Your task to perform on an android device: turn on sleep mode Image 0: 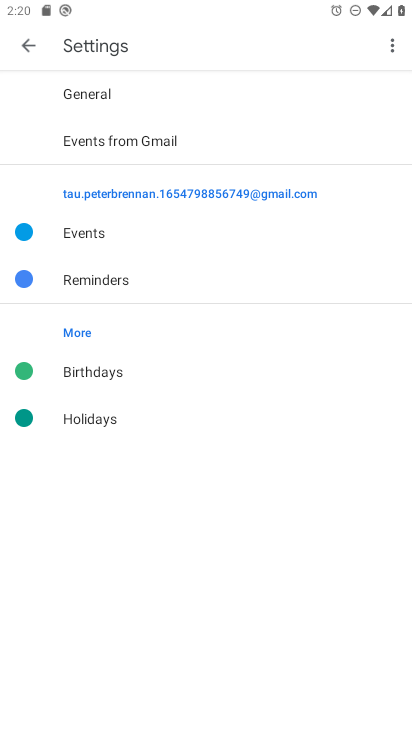
Step 0: press home button
Your task to perform on an android device: turn on sleep mode Image 1: 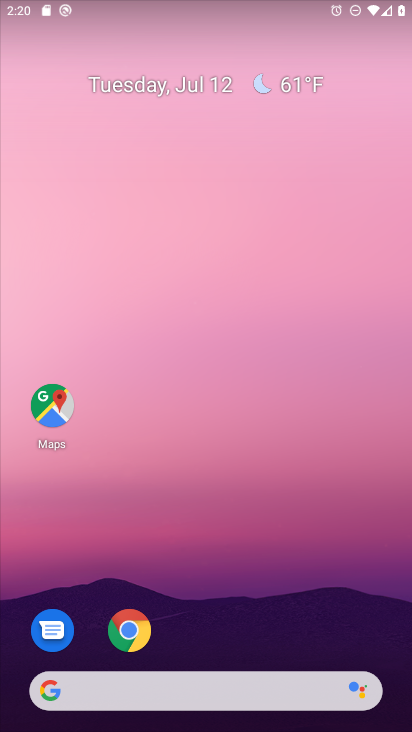
Step 1: drag from (197, 642) to (261, 65)
Your task to perform on an android device: turn on sleep mode Image 2: 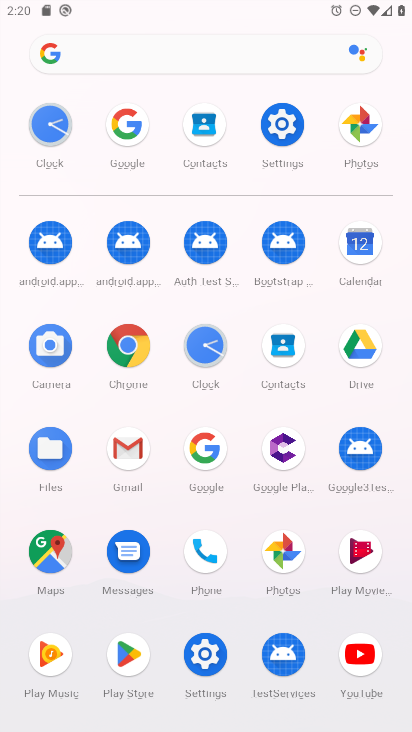
Step 2: click (279, 135)
Your task to perform on an android device: turn on sleep mode Image 3: 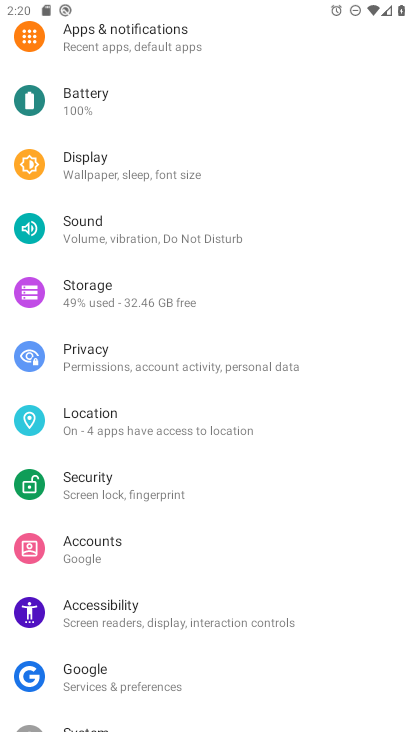
Step 3: click (164, 182)
Your task to perform on an android device: turn on sleep mode Image 4: 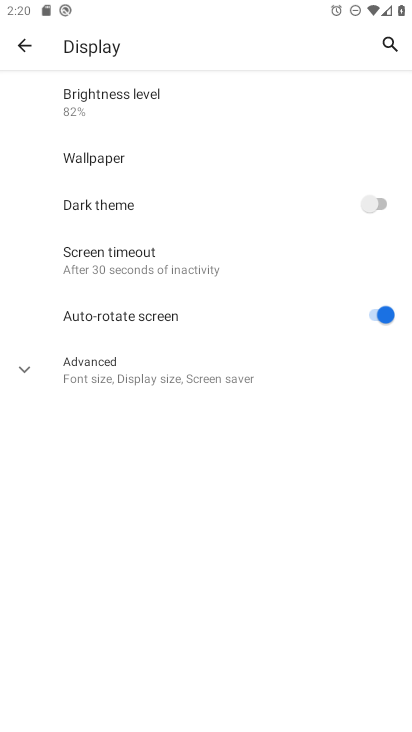
Step 4: click (170, 276)
Your task to perform on an android device: turn on sleep mode Image 5: 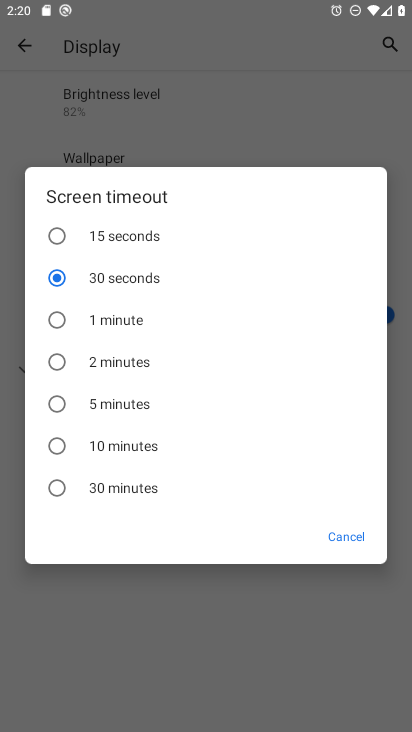
Step 5: click (116, 415)
Your task to perform on an android device: turn on sleep mode Image 6: 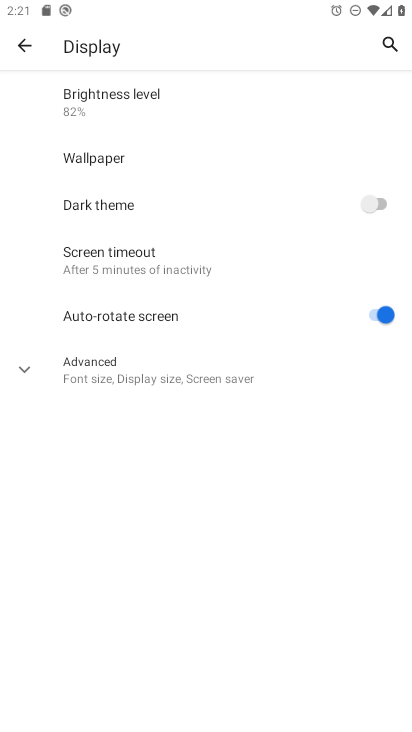
Step 6: click (164, 247)
Your task to perform on an android device: turn on sleep mode Image 7: 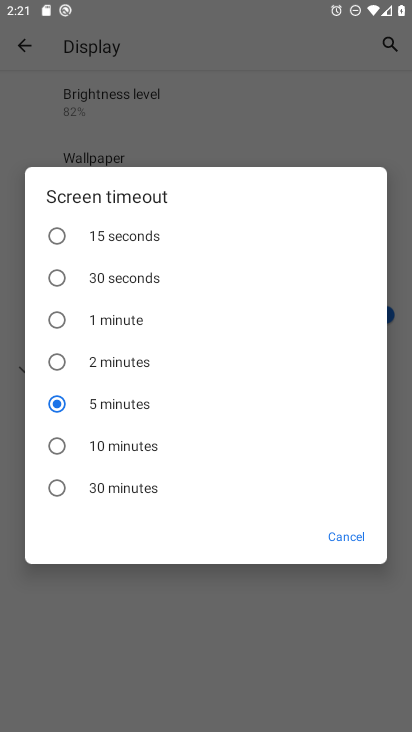
Step 7: click (150, 272)
Your task to perform on an android device: turn on sleep mode Image 8: 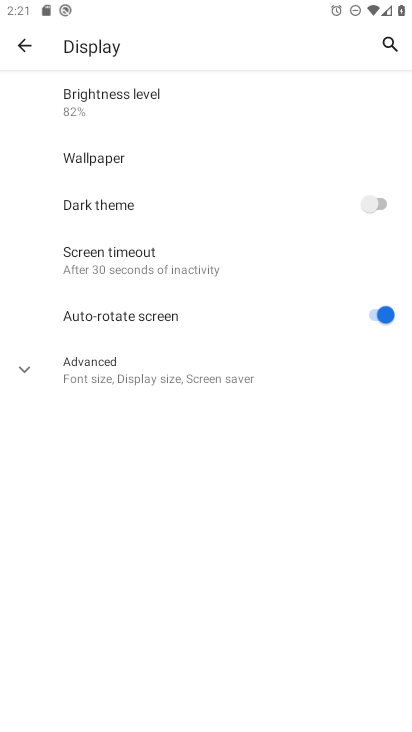
Step 8: task complete